Your task to perform on an android device: turn on javascript in the chrome app Image 0: 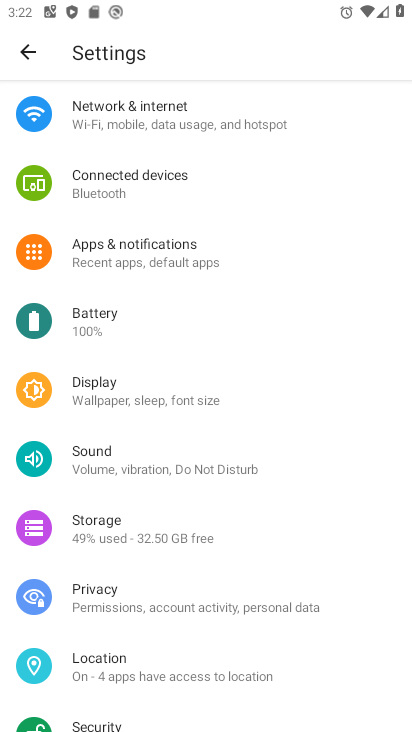
Step 0: press home button
Your task to perform on an android device: turn on javascript in the chrome app Image 1: 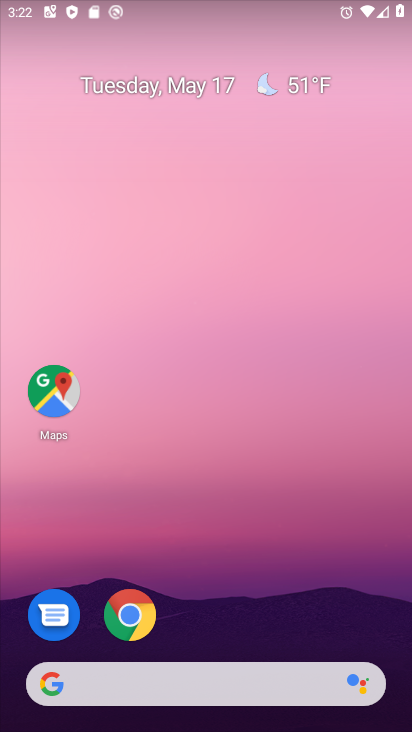
Step 1: drag from (203, 618) to (220, 113)
Your task to perform on an android device: turn on javascript in the chrome app Image 2: 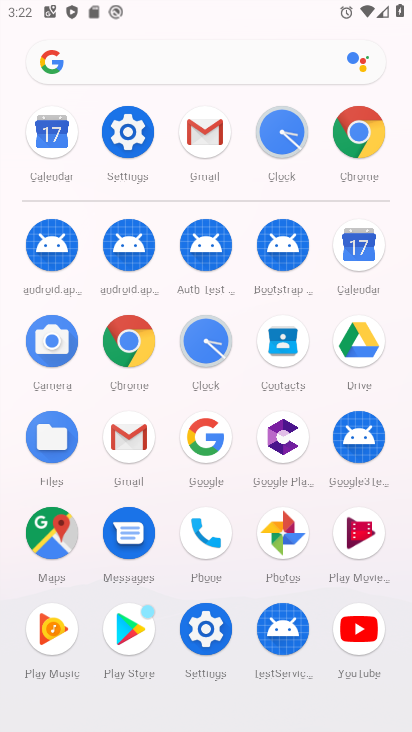
Step 2: click (357, 118)
Your task to perform on an android device: turn on javascript in the chrome app Image 3: 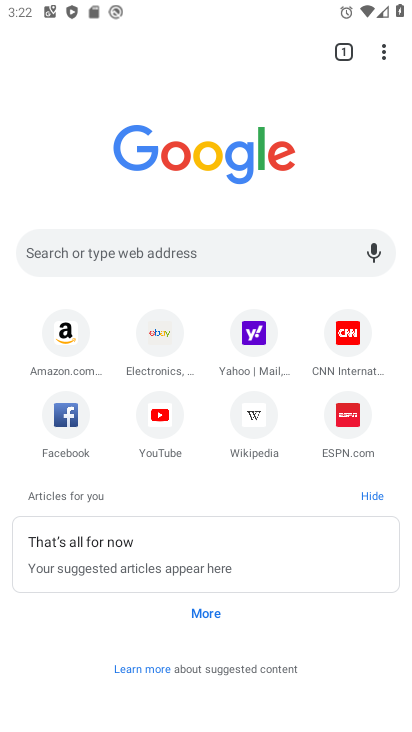
Step 3: click (386, 54)
Your task to perform on an android device: turn on javascript in the chrome app Image 4: 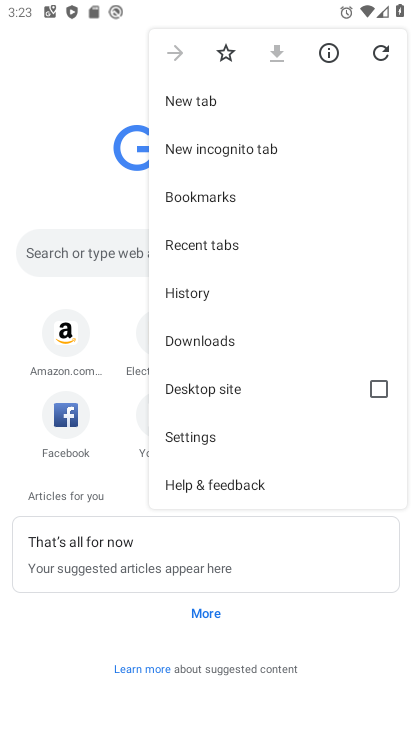
Step 4: click (227, 438)
Your task to perform on an android device: turn on javascript in the chrome app Image 5: 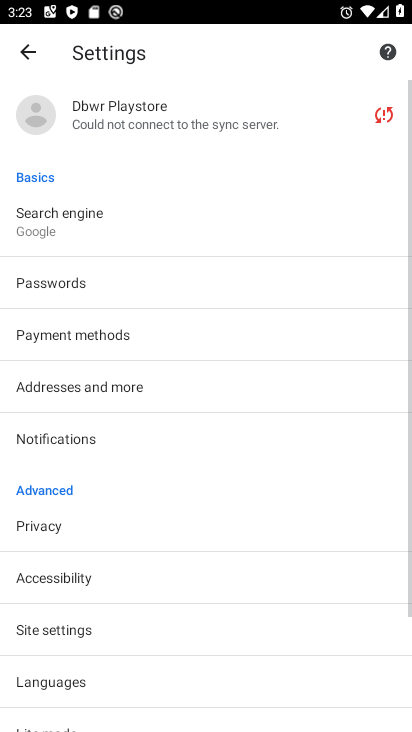
Step 5: drag from (145, 639) to (185, 261)
Your task to perform on an android device: turn on javascript in the chrome app Image 6: 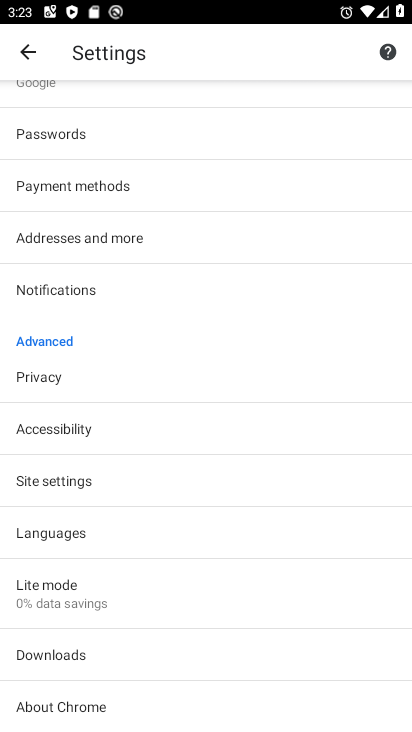
Step 6: click (114, 478)
Your task to perform on an android device: turn on javascript in the chrome app Image 7: 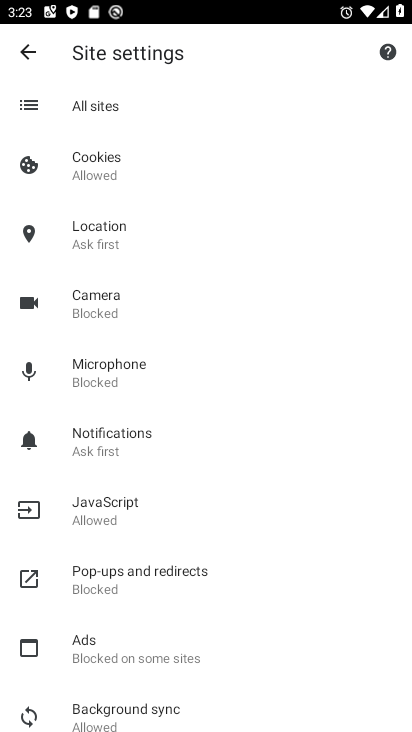
Step 7: click (155, 507)
Your task to perform on an android device: turn on javascript in the chrome app Image 8: 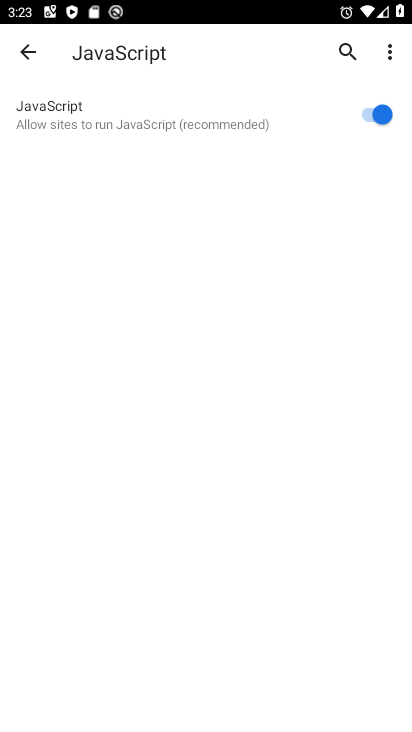
Step 8: task complete